Your task to perform on an android device: Go to Google Image 0: 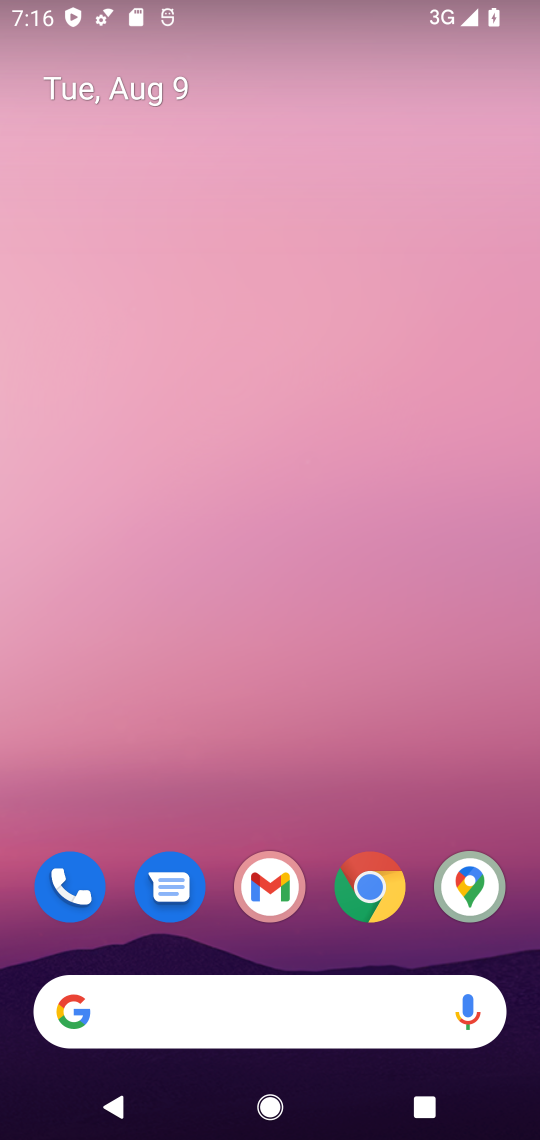
Step 0: click (174, 1001)
Your task to perform on an android device: Go to Google Image 1: 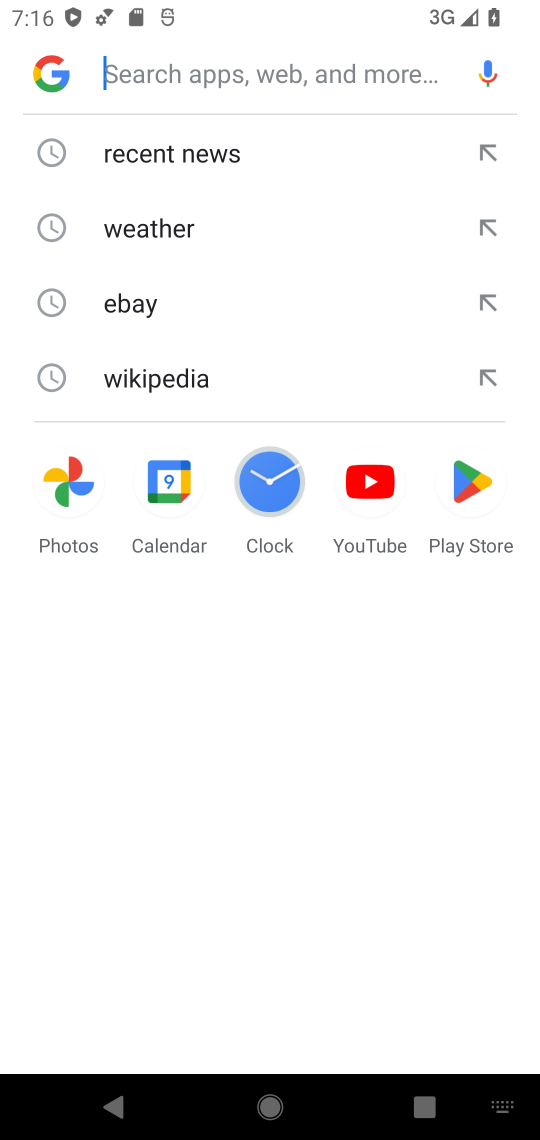
Step 1: click (46, 72)
Your task to perform on an android device: Go to Google Image 2: 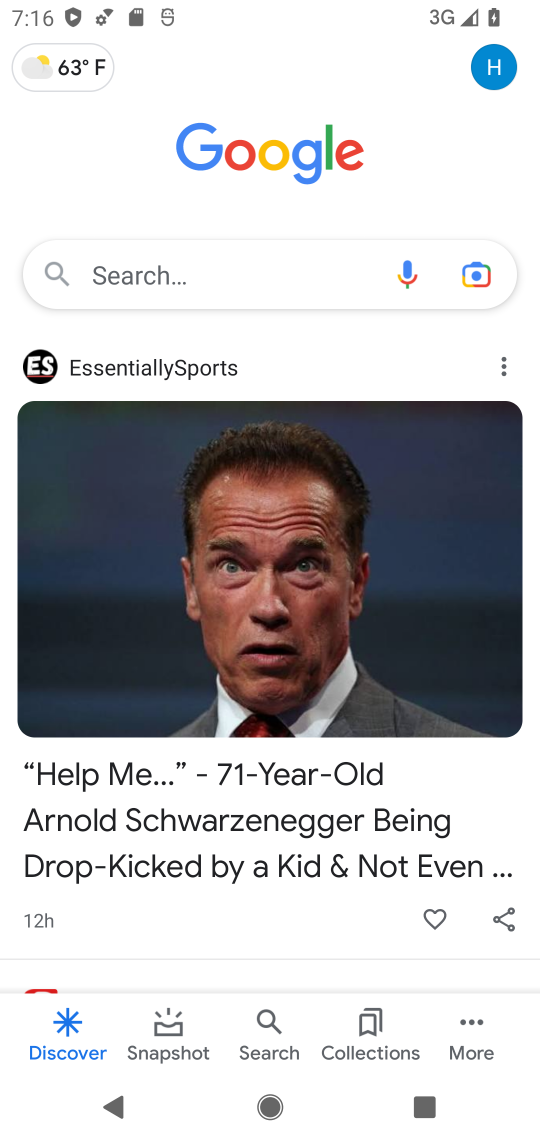
Step 2: task complete